Your task to perform on an android device: Check the weather Image 0: 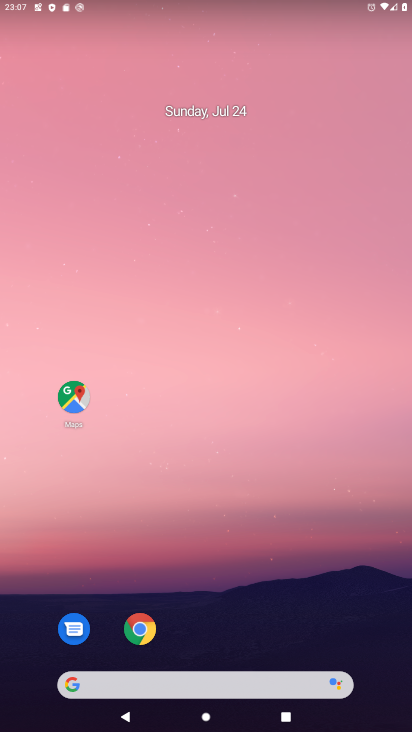
Step 0: drag from (186, 651) to (253, 112)
Your task to perform on an android device: Check the weather Image 1: 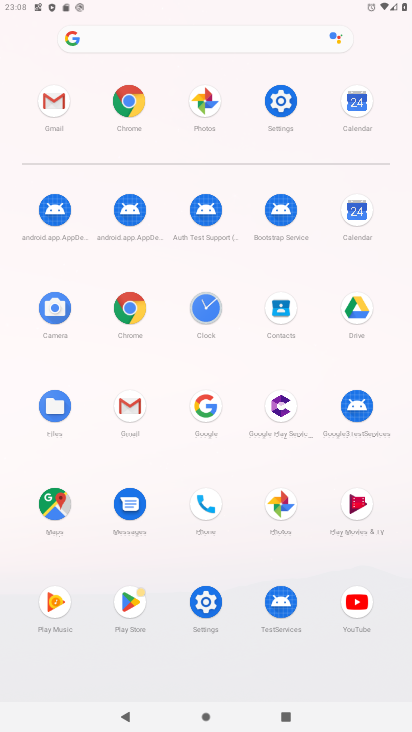
Step 1: click (160, 37)
Your task to perform on an android device: Check the weather Image 2: 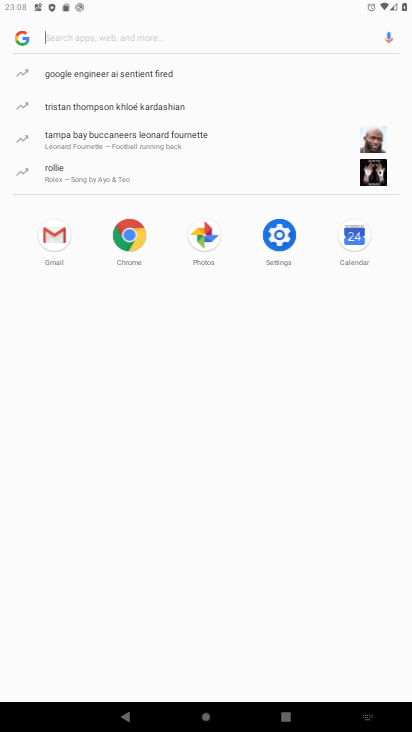
Step 2: type "weather"
Your task to perform on an android device: Check the weather Image 3: 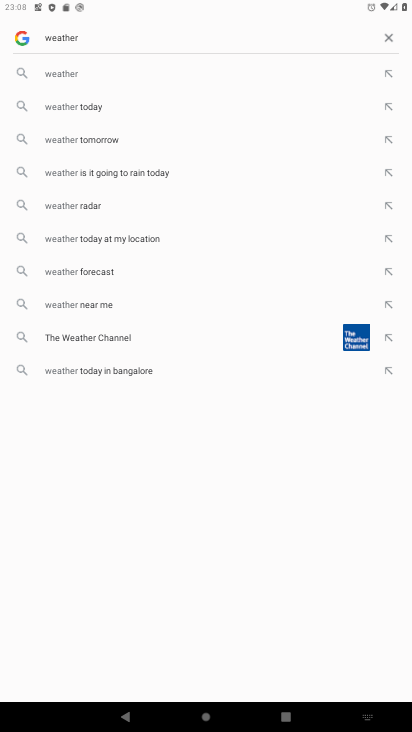
Step 3: click (60, 78)
Your task to perform on an android device: Check the weather Image 4: 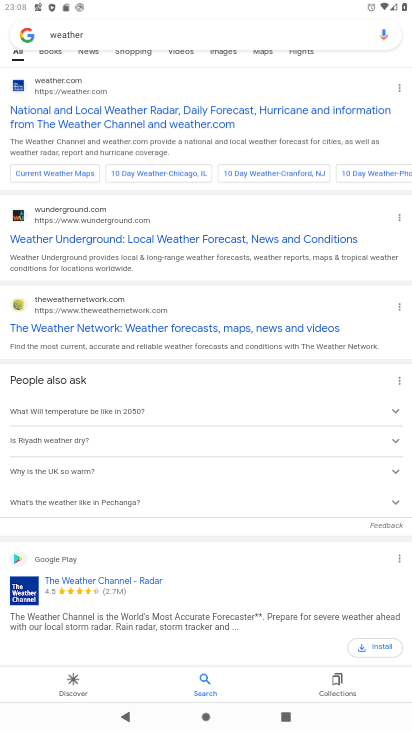
Step 4: task complete